Your task to perform on an android device: Go to Google Image 0: 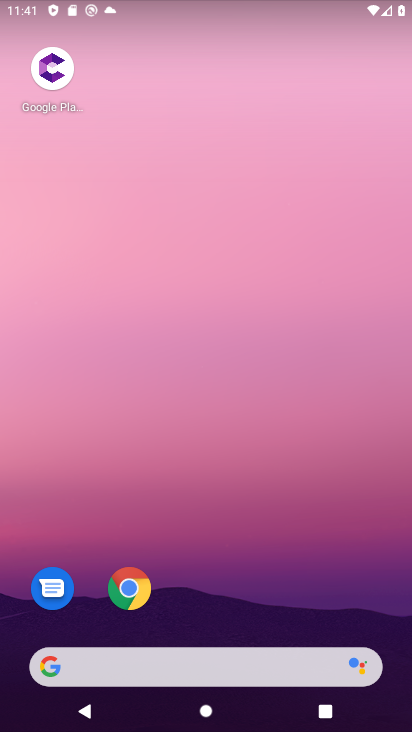
Step 0: drag from (178, 621) to (202, 84)
Your task to perform on an android device: Go to Google Image 1: 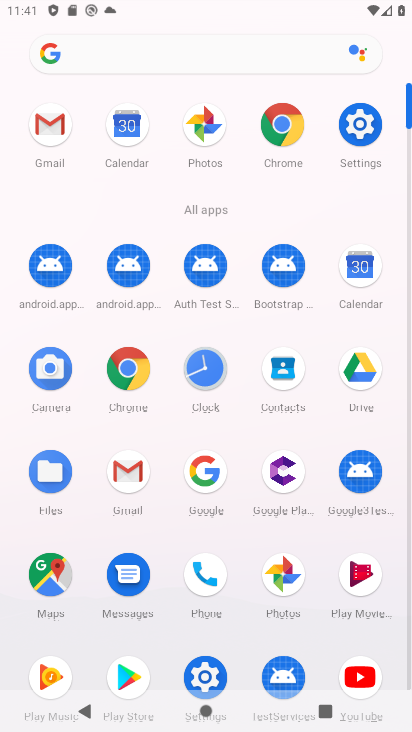
Step 1: click (205, 482)
Your task to perform on an android device: Go to Google Image 2: 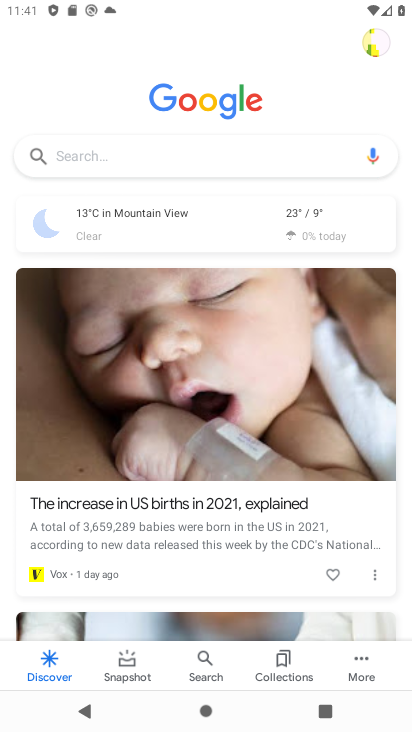
Step 2: task complete